Your task to perform on an android device: create a new album in the google photos Image 0: 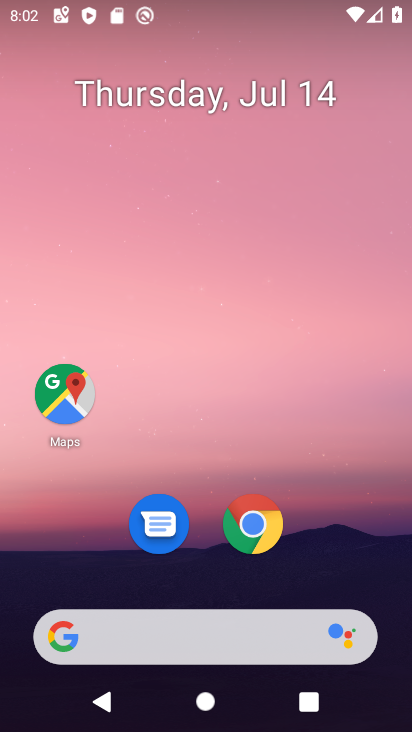
Step 0: drag from (319, 555) to (314, 1)
Your task to perform on an android device: create a new album in the google photos Image 1: 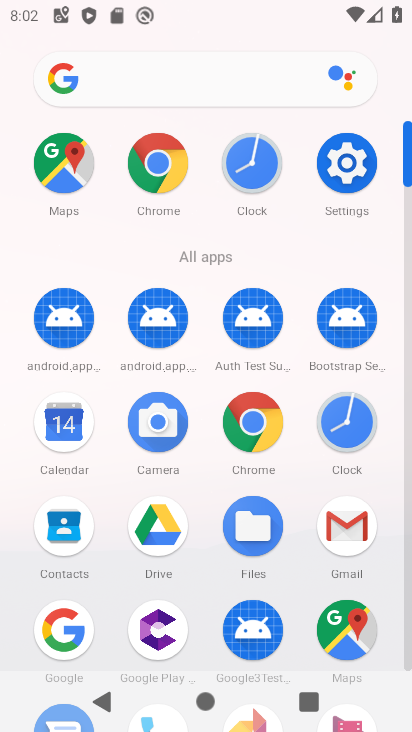
Step 1: drag from (292, 470) to (303, 124)
Your task to perform on an android device: create a new album in the google photos Image 2: 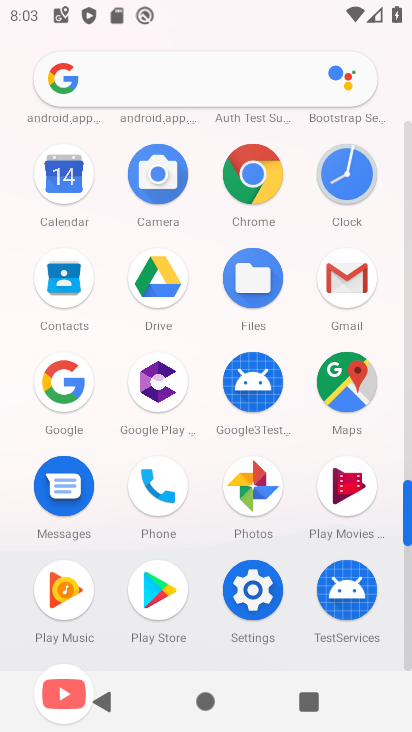
Step 2: click (248, 476)
Your task to perform on an android device: create a new album in the google photos Image 3: 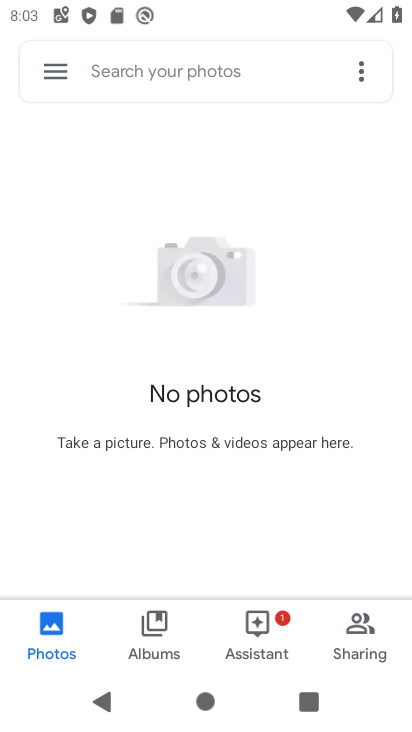
Step 3: click (146, 625)
Your task to perform on an android device: create a new album in the google photos Image 4: 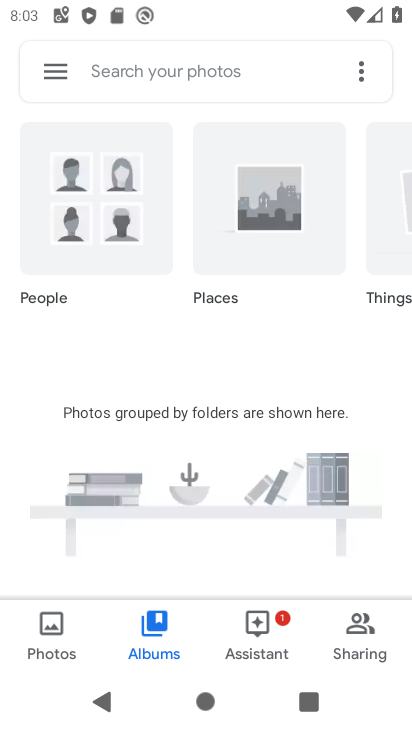
Step 4: click (361, 74)
Your task to perform on an android device: create a new album in the google photos Image 5: 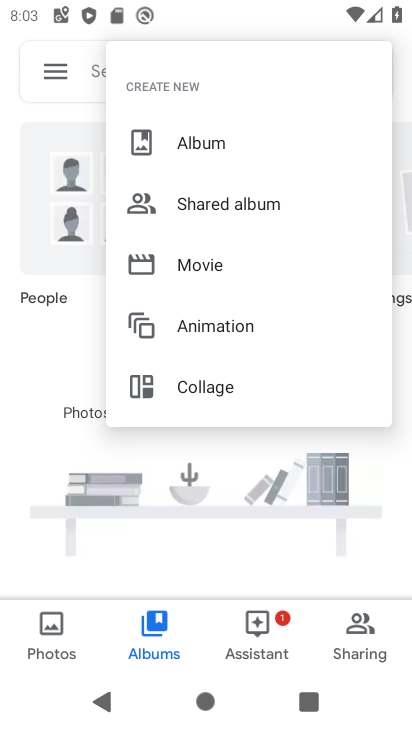
Step 5: click (215, 143)
Your task to perform on an android device: create a new album in the google photos Image 6: 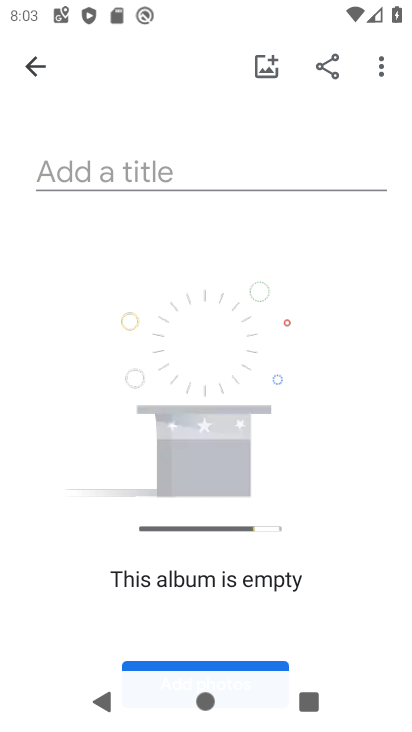
Step 6: click (215, 169)
Your task to perform on an android device: create a new album in the google photos Image 7: 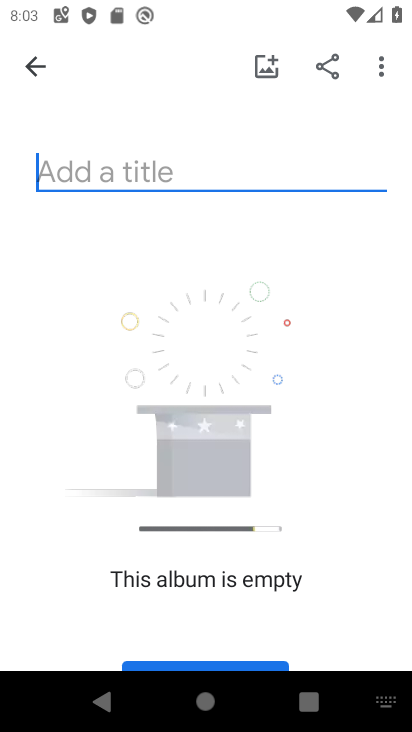
Step 7: type "Rishikesh"
Your task to perform on an android device: create a new album in the google photos Image 8: 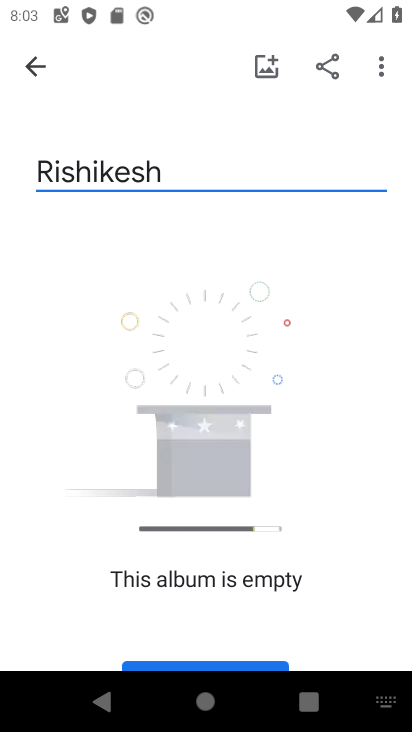
Step 8: click (274, 68)
Your task to perform on an android device: create a new album in the google photos Image 9: 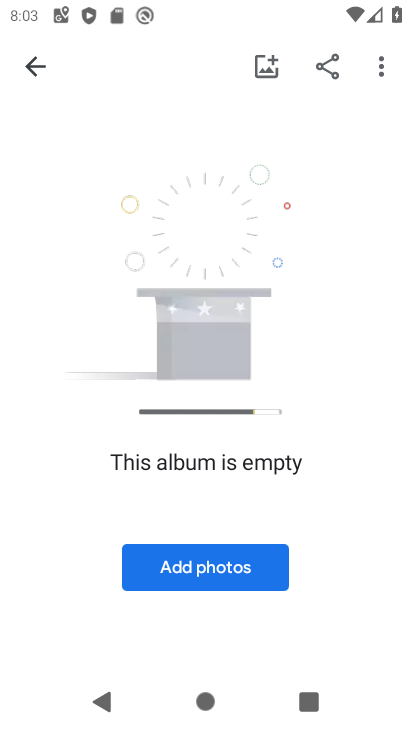
Step 9: click (211, 570)
Your task to perform on an android device: create a new album in the google photos Image 10: 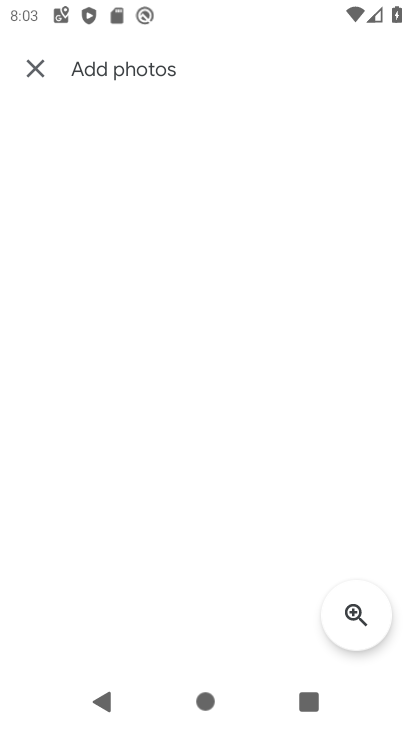
Step 10: click (350, 605)
Your task to perform on an android device: create a new album in the google photos Image 11: 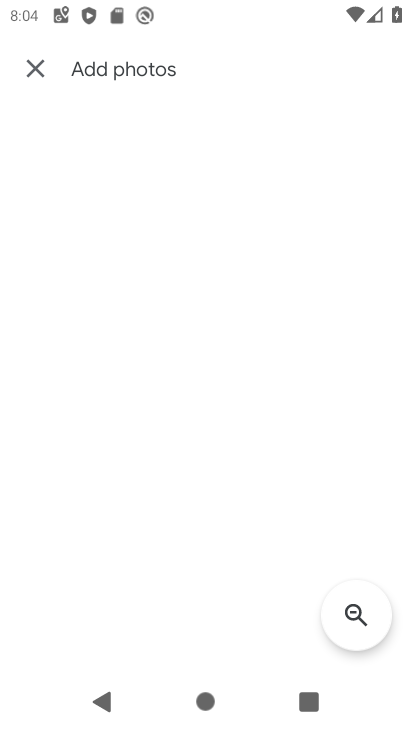
Step 11: click (32, 65)
Your task to perform on an android device: create a new album in the google photos Image 12: 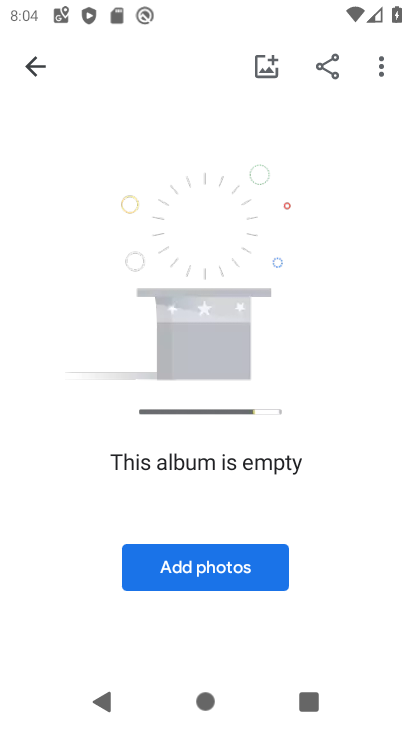
Step 12: click (383, 61)
Your task to perform on an android device: create a new album in the google photos Image 13: 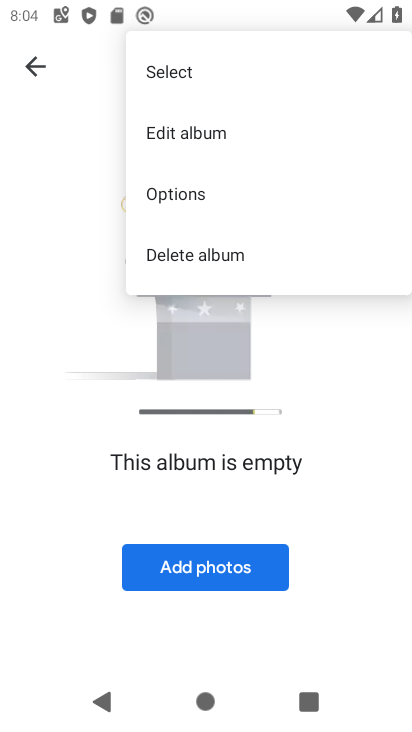
Step 13: click (182, 72)
Your task to perform on an android device: create a new album in the google photos Image 14: 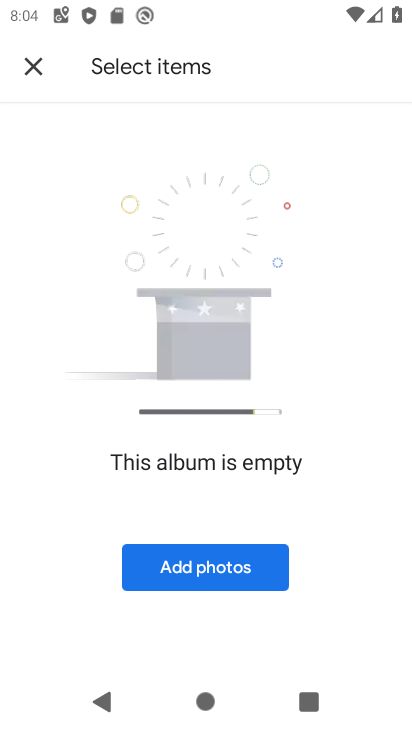
Step 14: click (33, 65)
Your task to perform on an android device: create a new album in the google photos Image 15: 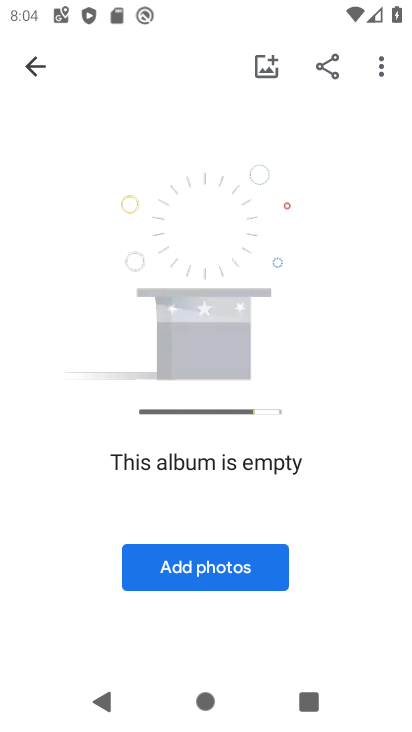
Step 15: task complete